Your task to perform on an android device: Go to wifi settings Image 0: 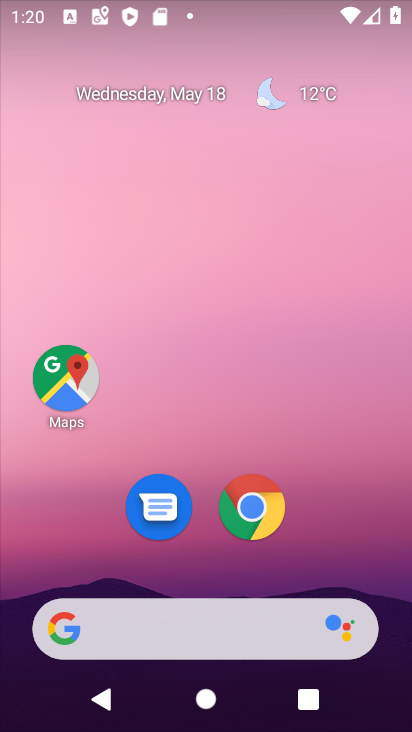
Step 0: drag from (396, 626) to (279, 194)
Your task to perform on an android device: Go to wifi settings Image 1: 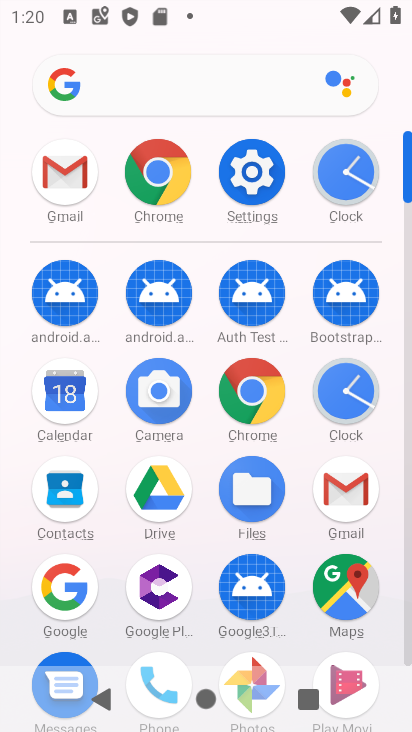
Step 1: click (407, 646)
Your task to perform on an android device: Go to wifi settings Image 2: 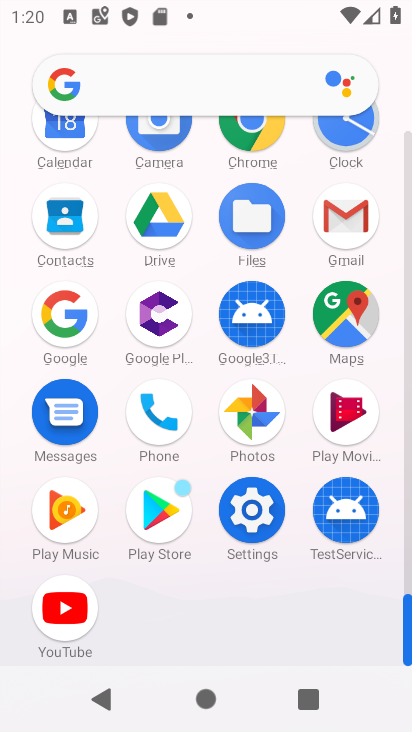
Step 2: click (251, 513)
Your task to perform on an android device: Go to wifi settings Image 3: 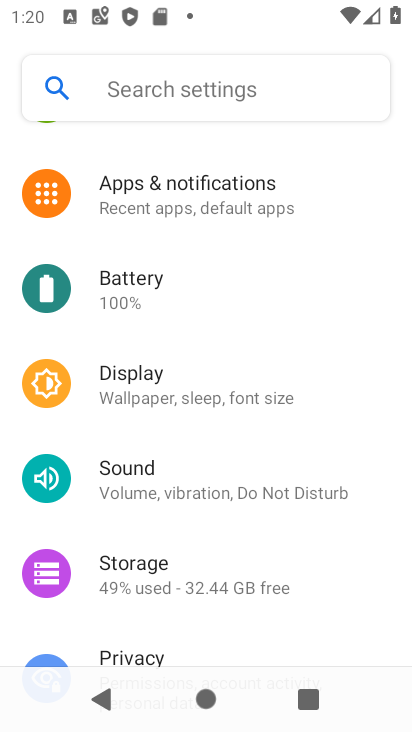
Step 3: drag from (278, 201) to (272, 477)
Your task to perform on an android device: Go to wifi settings Image 4: 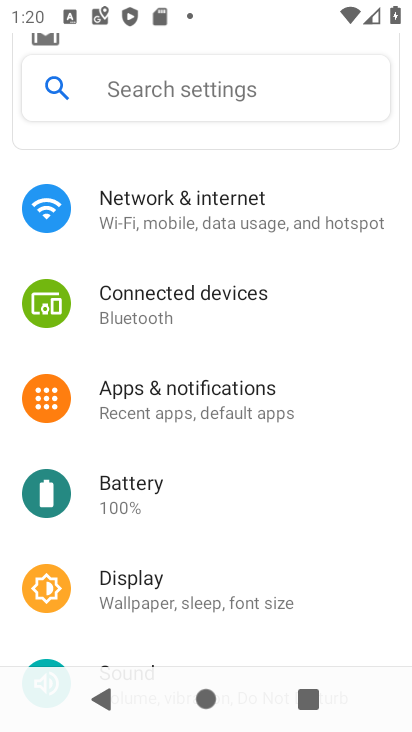
Step 4: click (159, 202)
Your task to perform on an android device: Go to wifi settings Image 5: 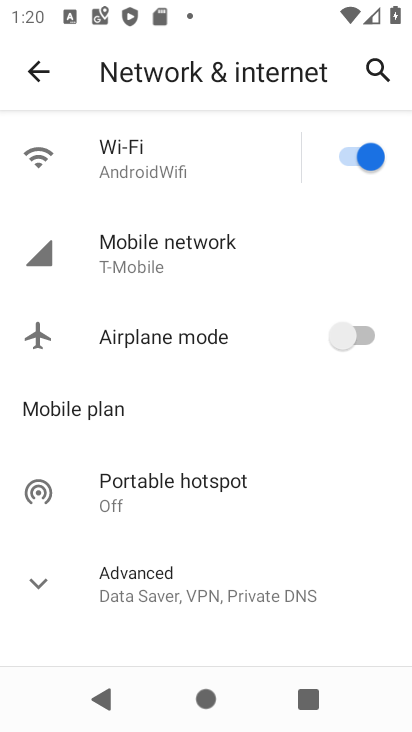
Step 5: click (125, 147)
Your task to perform on an android device: Go to wifi settings Image 6: 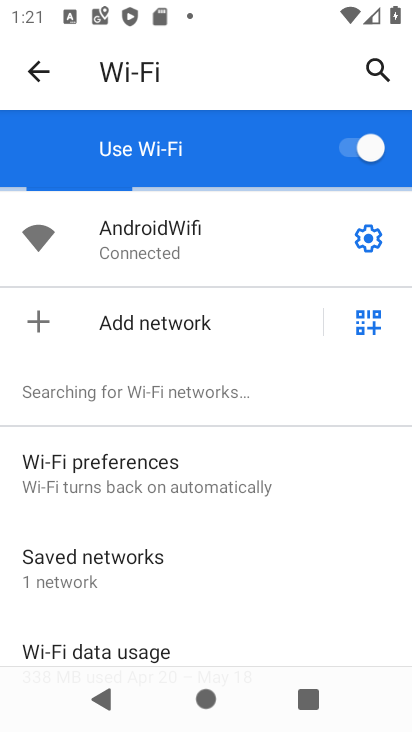
Step 6: task complete